Your task to perform on an android device: turn on priority inbox in the gmail app Image 0: 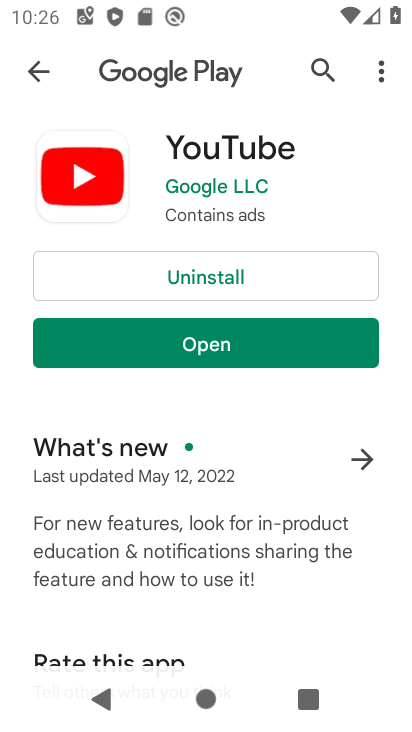
Step 0: press home button
Your task to perform on an android device: turn on priority inbox in the gmail app Image 1: 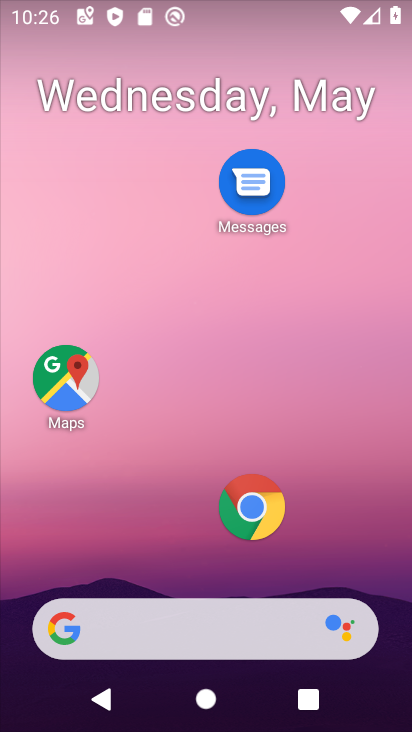
Step 1: drag from (189, 567) to (173, 47)
Your task to perform on an android device: turn on priority inbox in the gmail app Image 2: 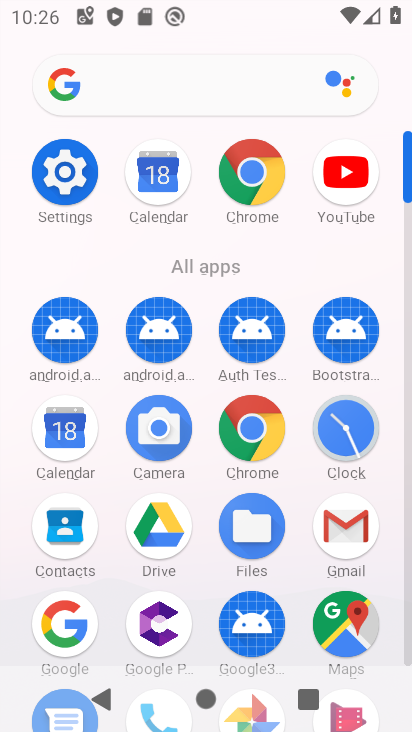
Step 2: click (340, 515)
Your task to perform on an android device: turn on priority inbox in the gmail app Image 3: 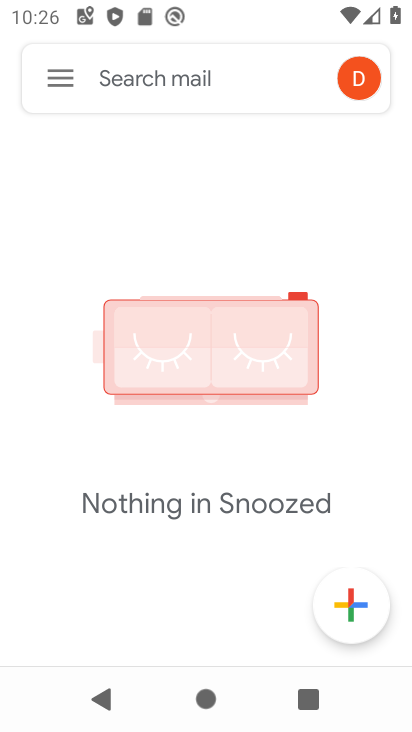
Step 3: click (62, 72)
Your task to perform on an android device: turn on priority inbox in the gmail app Image 4: 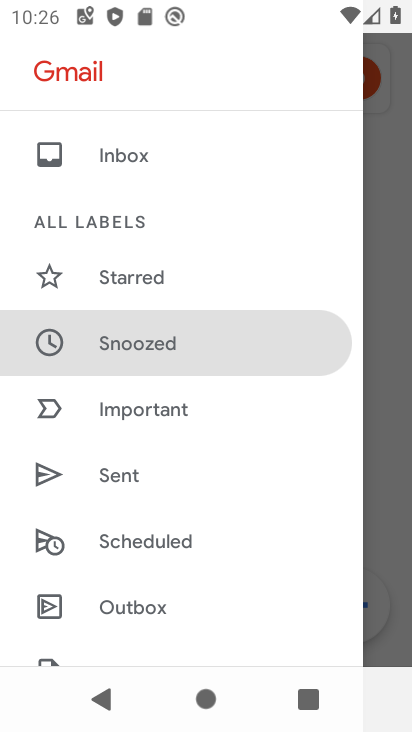
Step 4: drag from (208, 633) to (272, 52)
Your task to perform on an android device: turn on priority inbox in the gmail app Image 5: 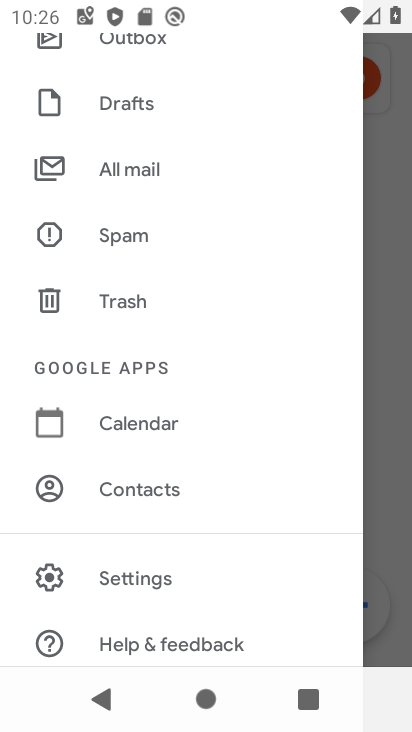
Step 5: click (183, 577)
Your task to perform on an android device: turn on priority inbox in the gmail app Image 6: 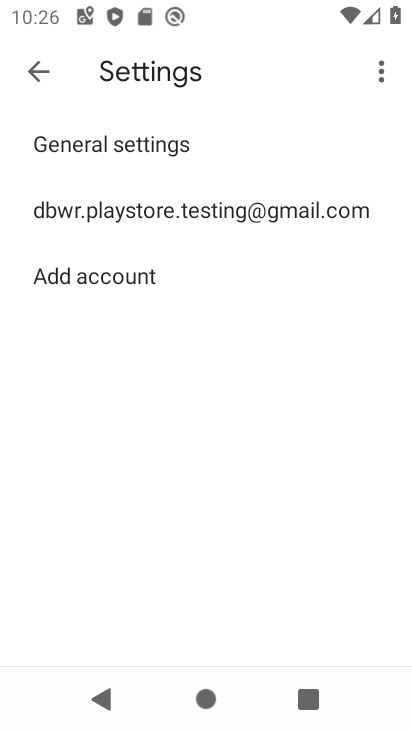
Step 6: click (373, 203)
Your task to perform on an android device: turn on priority inbox in the gmail app Image 7: 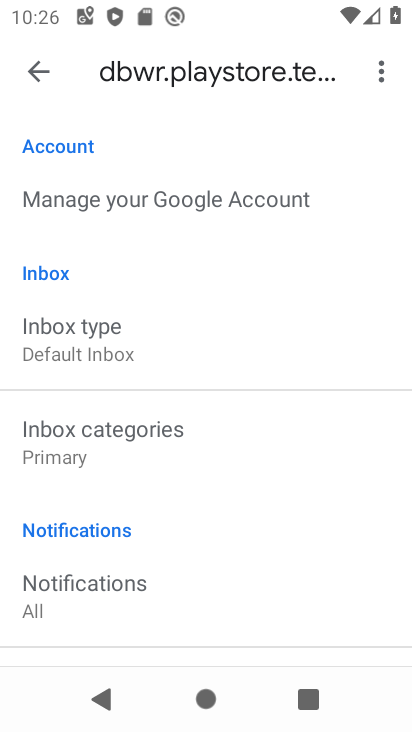
Step 7: click (153, 337)
Your task to perform on an android device: turn on priority inbox in the gmail app Image 8: 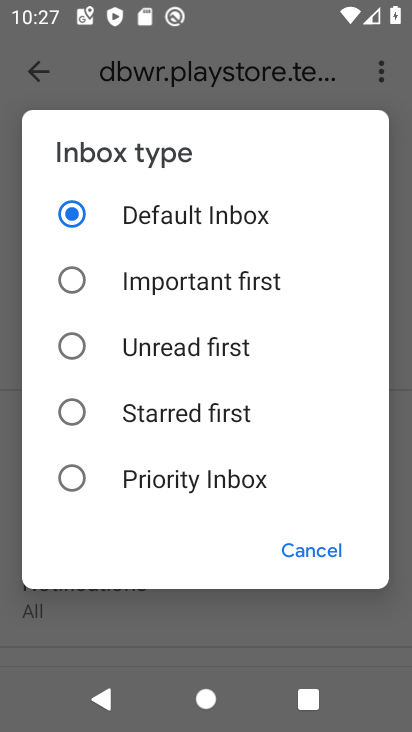
Step 8: click (67, 477)
Your task to perform on an android device: turn on priority inbox in the gmail app Image 9: 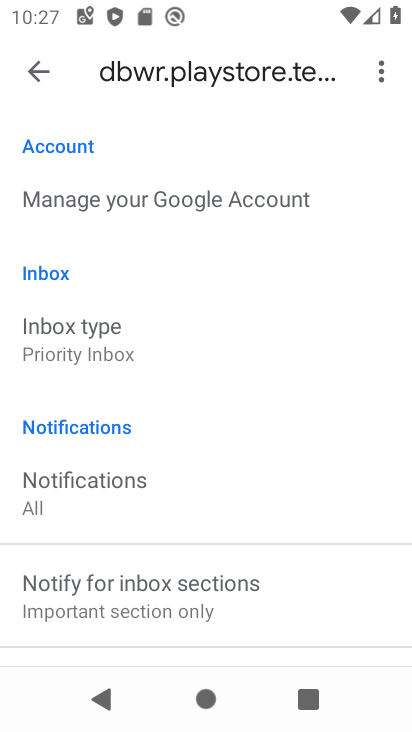
Step 9: task complete